Your task to perform on an android device: Open Google Chrome Image 0: 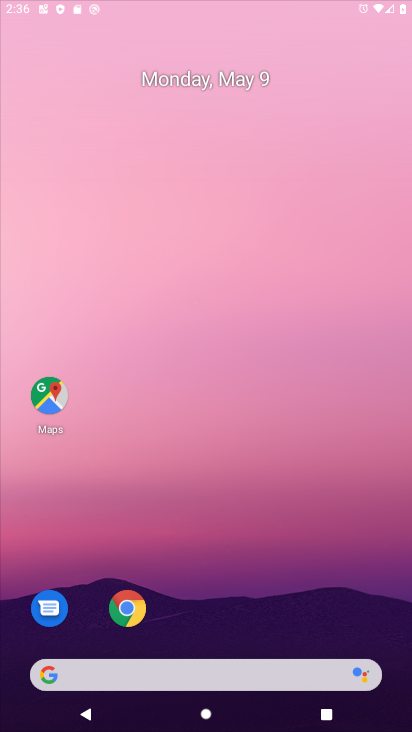
Step 0: click (36, 397)
Your task to perform on an android device: Open Google Chrome Image 1: 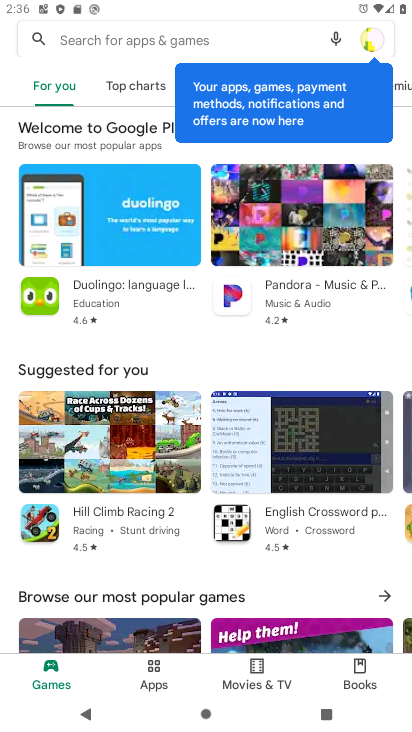
Step 1: press home button
Your task to perform on an android device: Open Google Chrome Image 2: 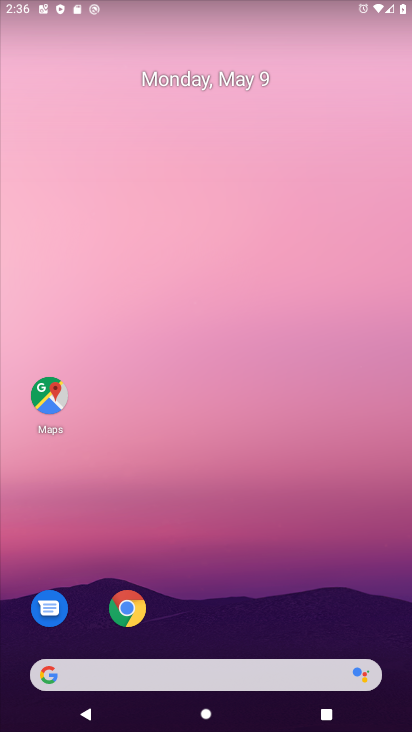
Step 2: click (125, 604)
Your task to perform on an android device: Open Google Chrome Image 3: 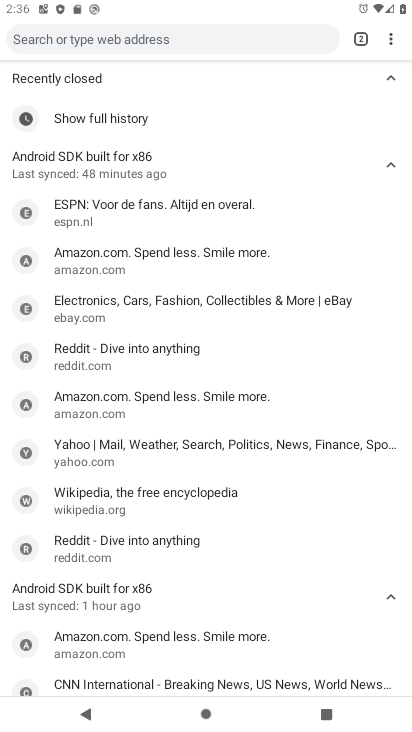
Step 3: task complete